Your task to perform on an android device: What is the recent news? Image 0: 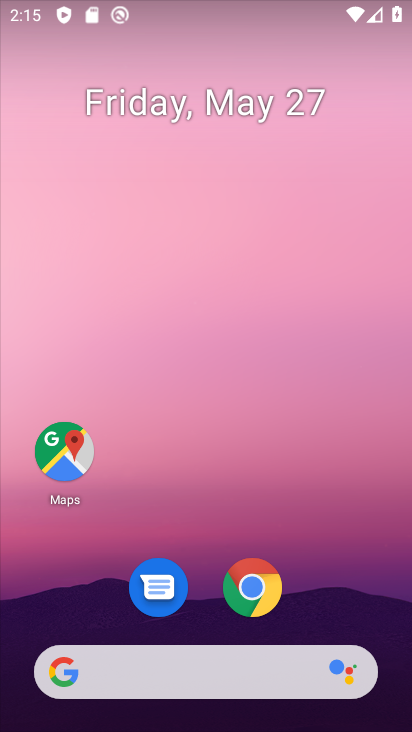
Step 0: press home button
Your task to perform on an android device: What is the recent news? Image 1: 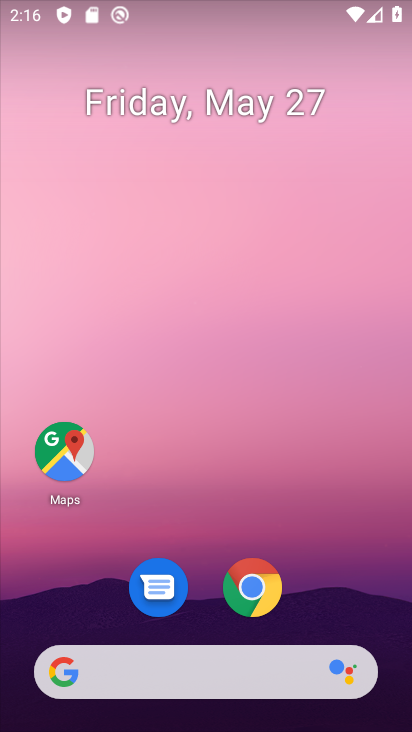
Step 1: click (73, 669)
Your task to perform on an android device: What is the recent news? Image 2: 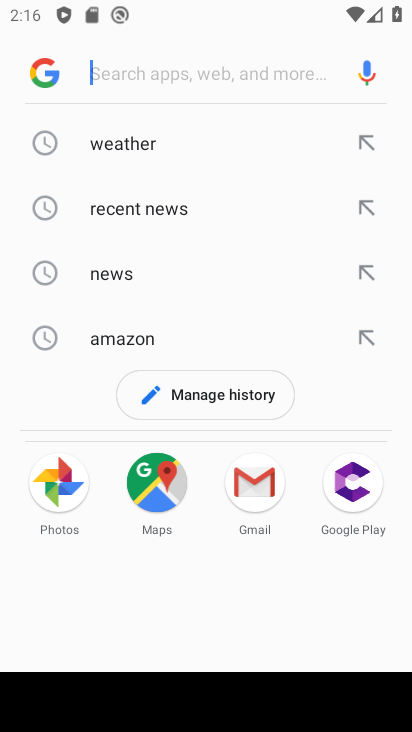
Step 2: click (140, 217)
Your task to perform on an android device: What is the recent news? Image 3: 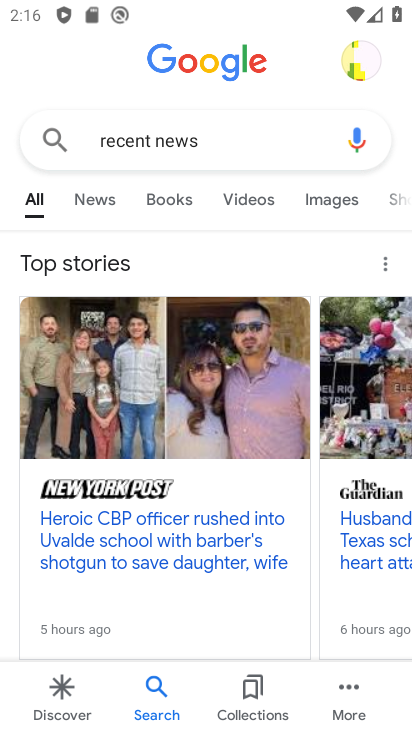
Step 3: task complete